Your task to perform on an android device: Set an alarmfor 5pm Image 0: 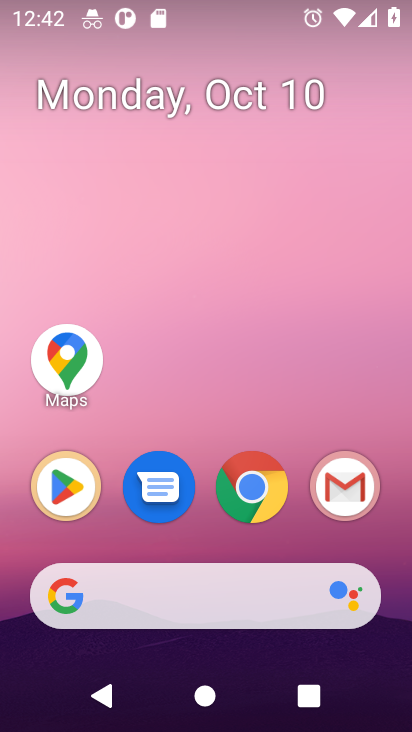
Step 0: click (262, 492)
Your task to perform on an android device: Set an alarmfor 5pm Image 1: 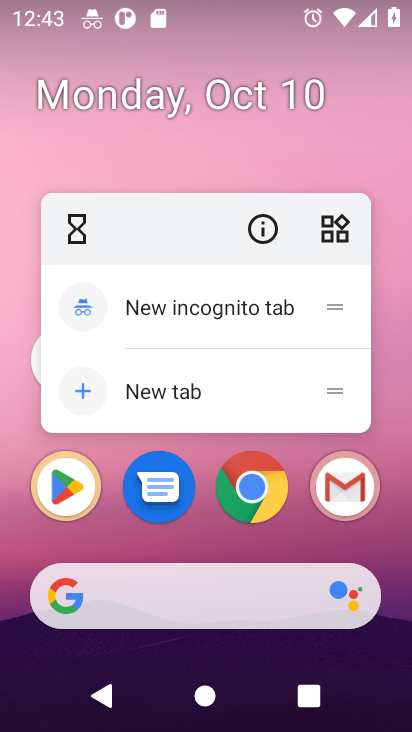
Step 1: drag from (233, 729) to (234, 162)
Your task to perform on an android device: Set an alarmfor 5pm Image 2: 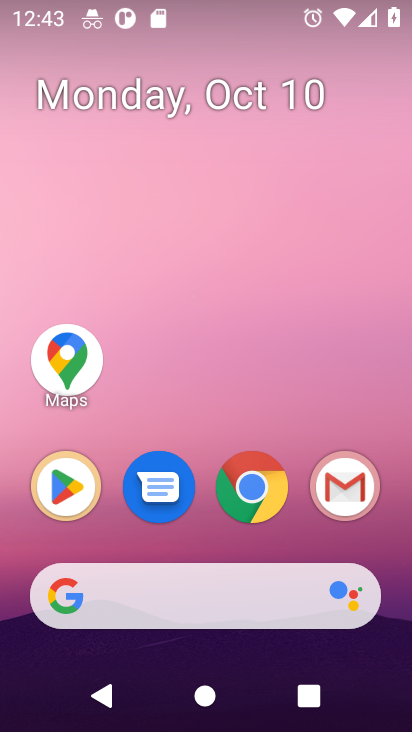
Step 2: drag from (294, 731) to (285, 102)
Your task to perform on an android device: Set an alarmfor 5pm Image 3: 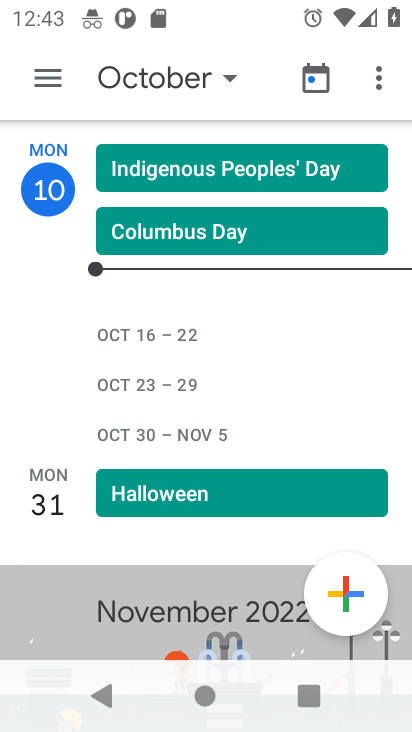
Step 3: press home button
Your task to perform on an android device: Set an alarmfor 5pm Image 4: 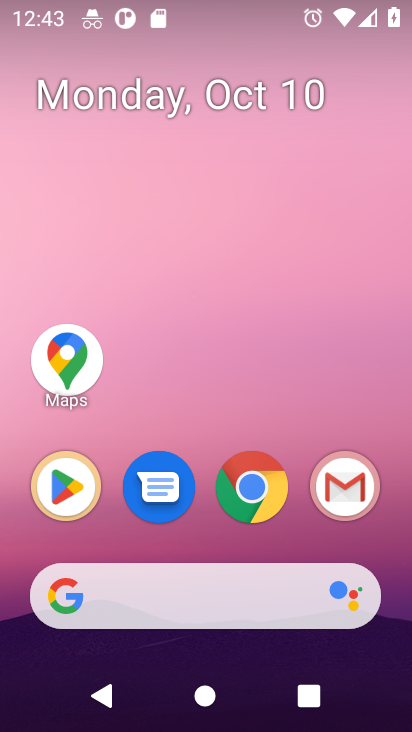
Step 4: click (243, 169)
Your task to perform on an android device: Set an alarmfor 5pm Image 5: 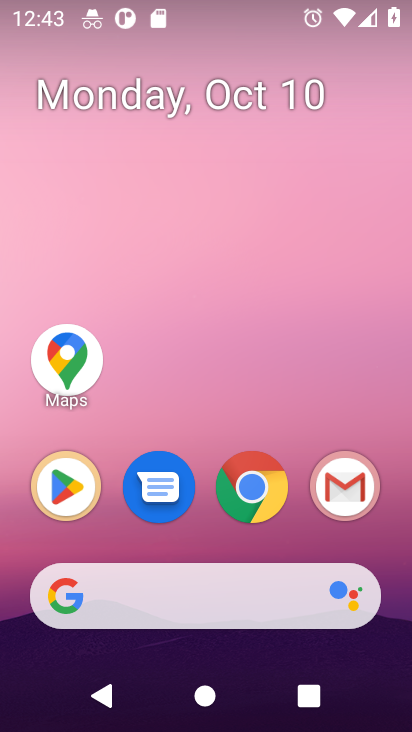
Step 5: click (360, 77)
Your task to perform on an android device: Set an alarmfor 5pm Image 6: 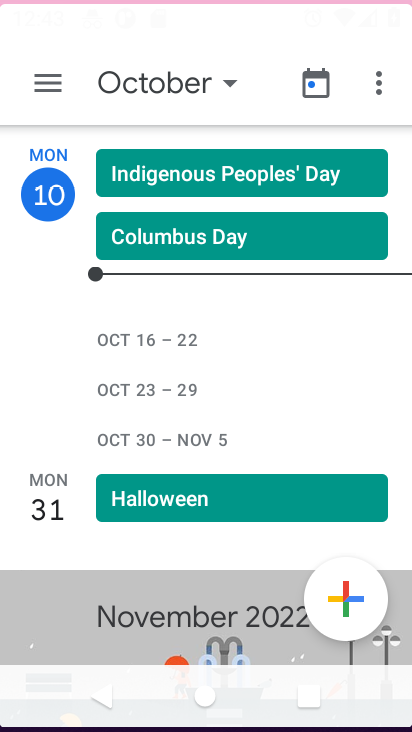
Step 6: click (228, 42)
Your task to perform on an android device: Set an alarmfor 5pm Image 7: 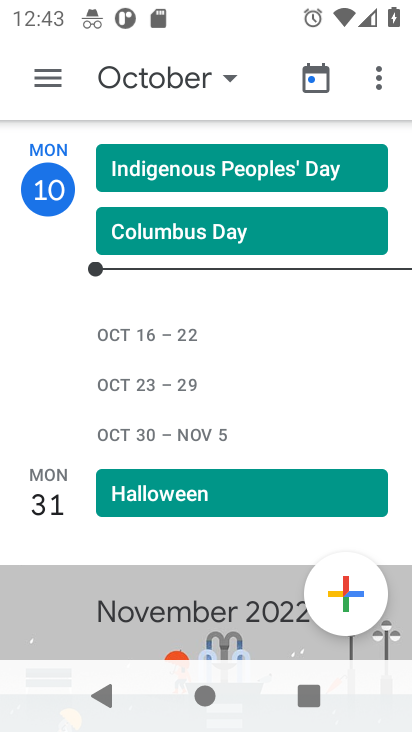
Step 7: drag from (225, 656) to (211, 58)
Your task to perform on an android device: Set an alarmfor 5pm Image 8: 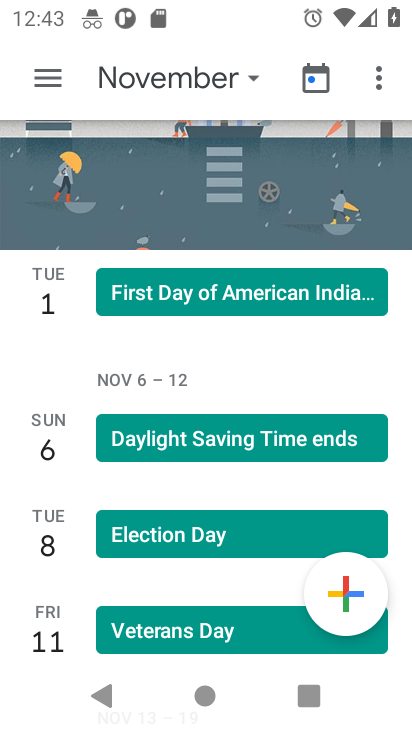
Step 8: press home button
Your task to perform on an android device: Set an alarmfor 5pm Image 9: 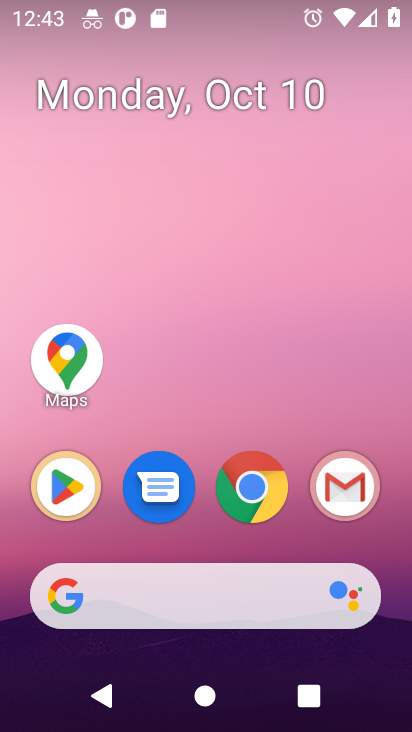
Step 9: drag from (214, 656) to (258, 151)
Your task to perform on an android device: Set an alarmfor 5pm Image 10: 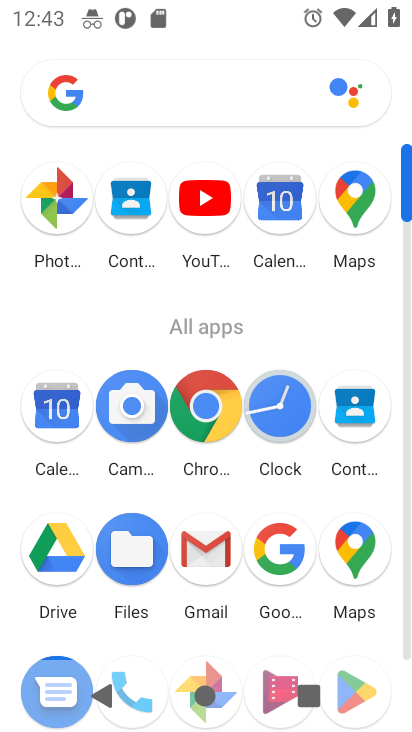
Step 10: click (294, 407)
Your task to perform on an android device: Set an alarmfor 5pm Image 11: 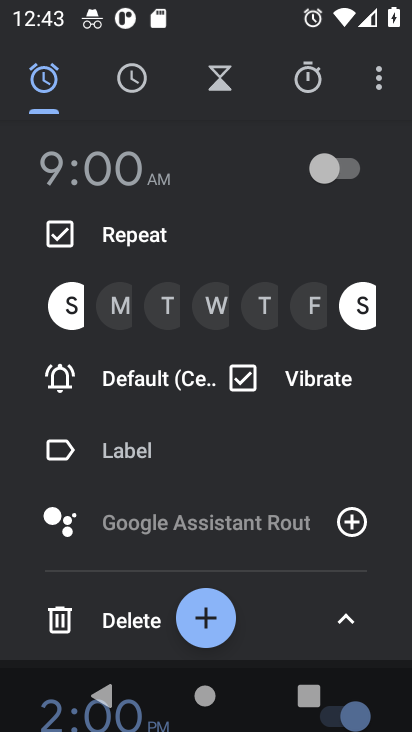
Step 11: click (201, 623)
Your task to perform on an android device: Set an alarmfor 5pm Image 12: 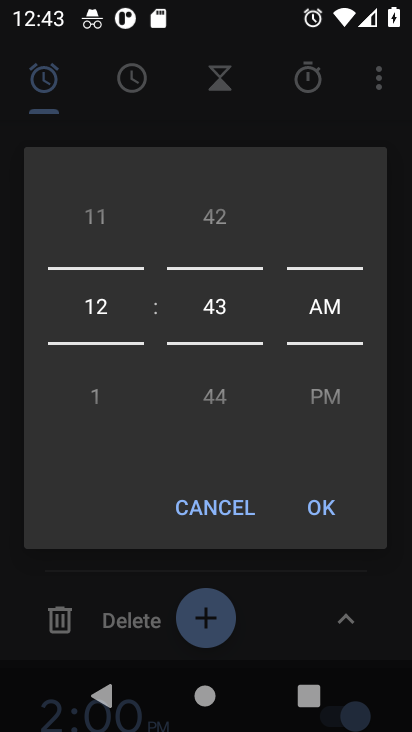
Step 12: click (90, 306)
Your task to perform on an android device: Set an alarmfor 5pm Image 13: 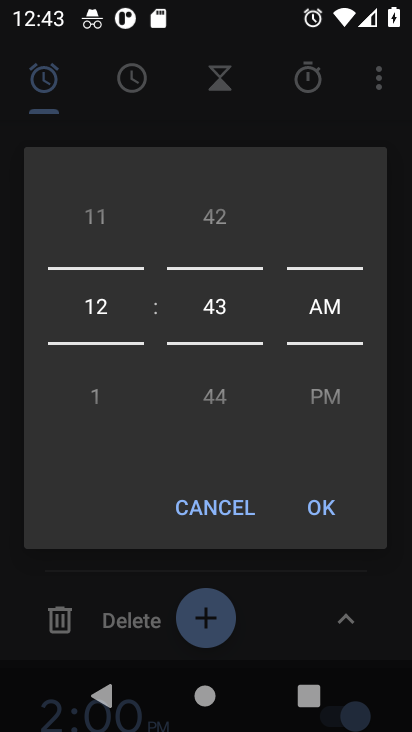
Step 13: click (93, 311)
Your task to perform on an android device: Set an alarmfor 5pm Image 14: 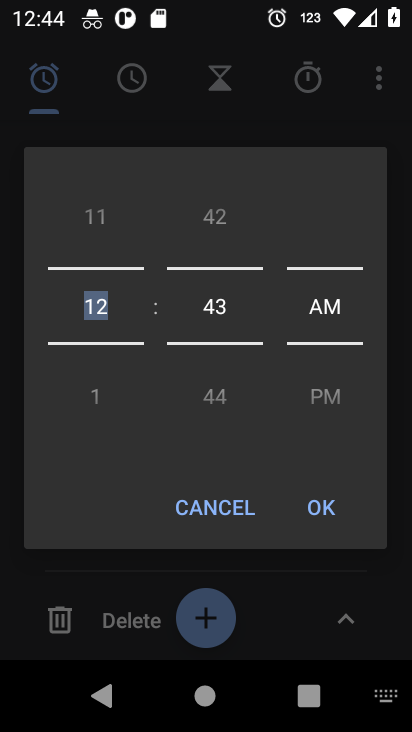
Step 14: type "5"
Your task to perform on an android device: Set an alarmfor 5pm Image 15: 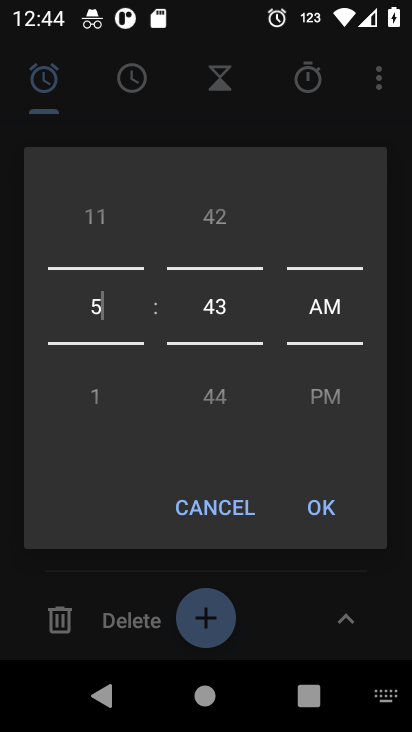
Step 15: click (212, 309)
Your task to perform on an android device: Set an alarmfor 5pm Image 16: 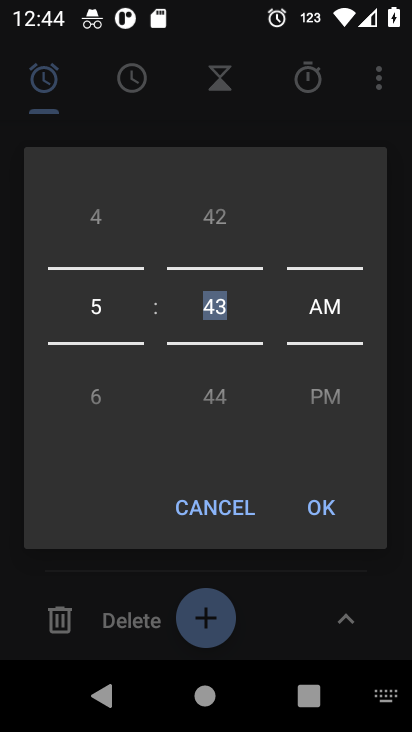
Step 16: type "00"
Your task to perform on an android device: Set an alarmfor 5pm Image 17: 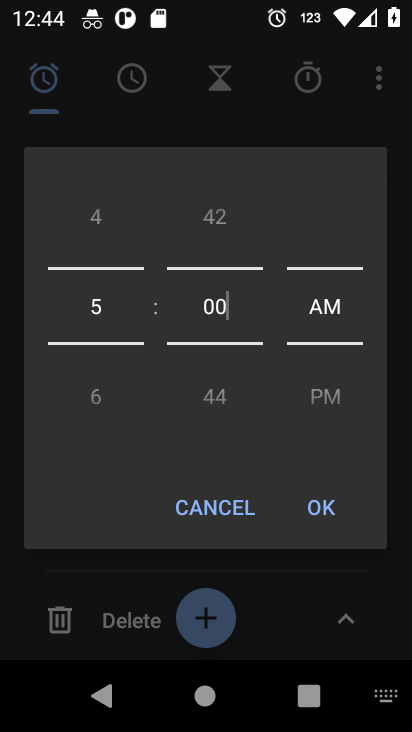
Step 17: type ""
Your task to perform on an android device: Set an alarmfor 5pm Image 18: 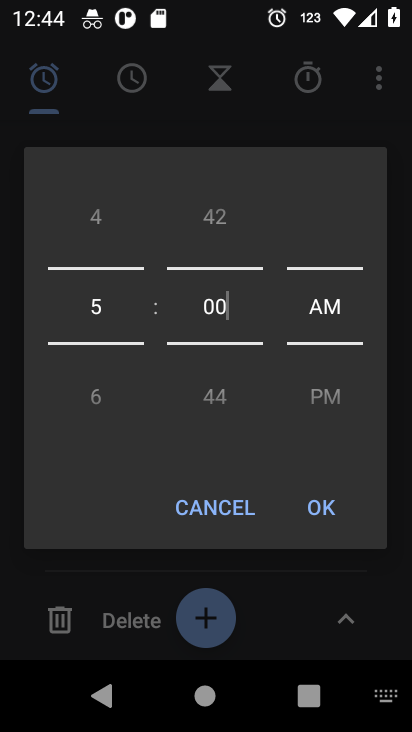
Step 18: drag from (319, 330) to (313, 200)
Your task to perform on an android device: Set an alarmfor 5pm Image 19: 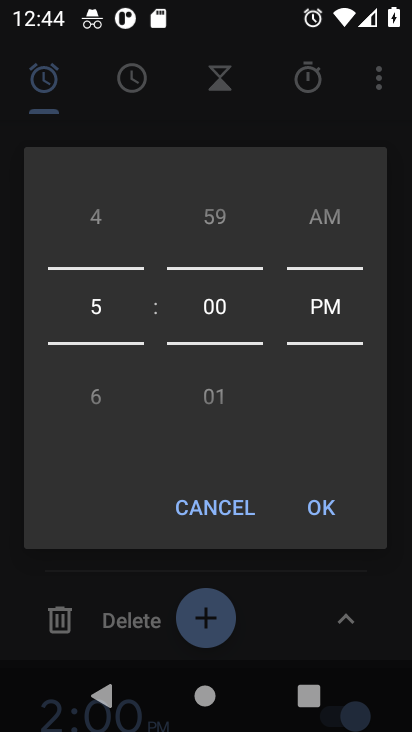
Step 19: click (329, 514)
Your task to perform on an android device: Set an alarmfor 5pm Image 20: 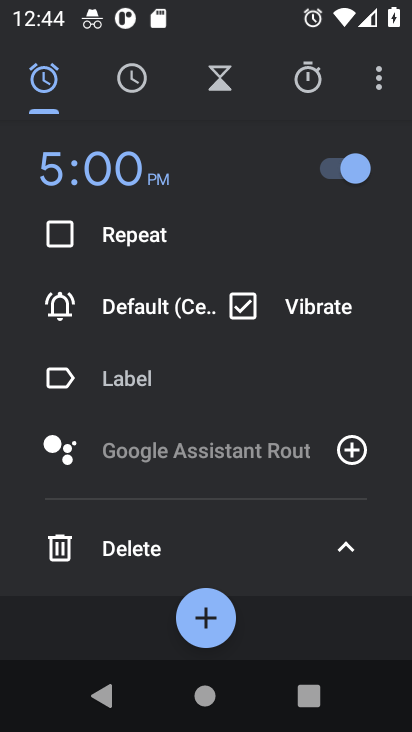
Step 20: drag from (265, 431) to (245, 205)
Your task to perform on an android device: Set an alarmfor 5pm Image 21: 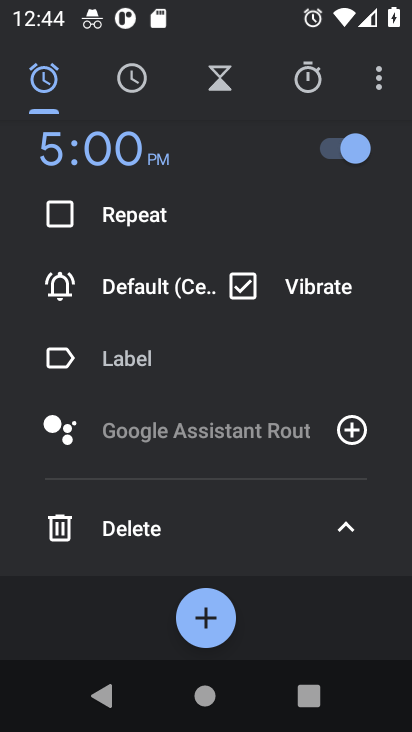
Step 21: drag from (238, 406) to (345, 525)
Your task to perform on an android device: Set an alarmfor 5pm Image 22: 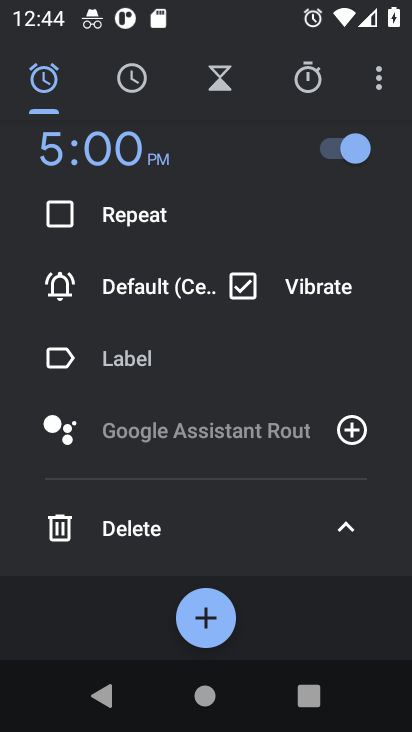
Step 22: click (344, 534)
Your task to perform on an android device: Set an alarmfor 5pm Image 23: 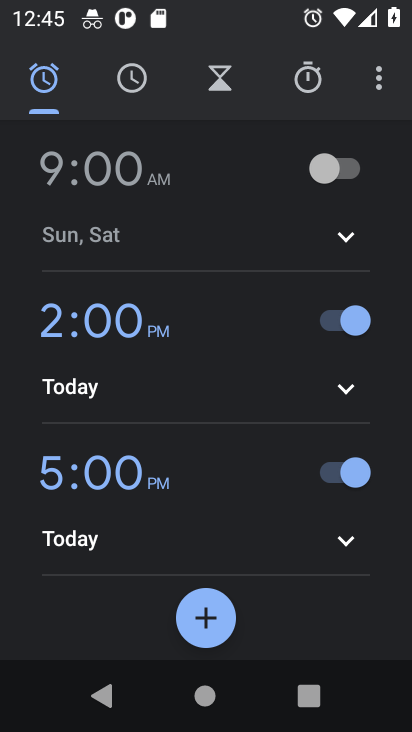
Step 23: task complete